Your task to perform on an android device: install app "Facebook Messenger" Image 0: 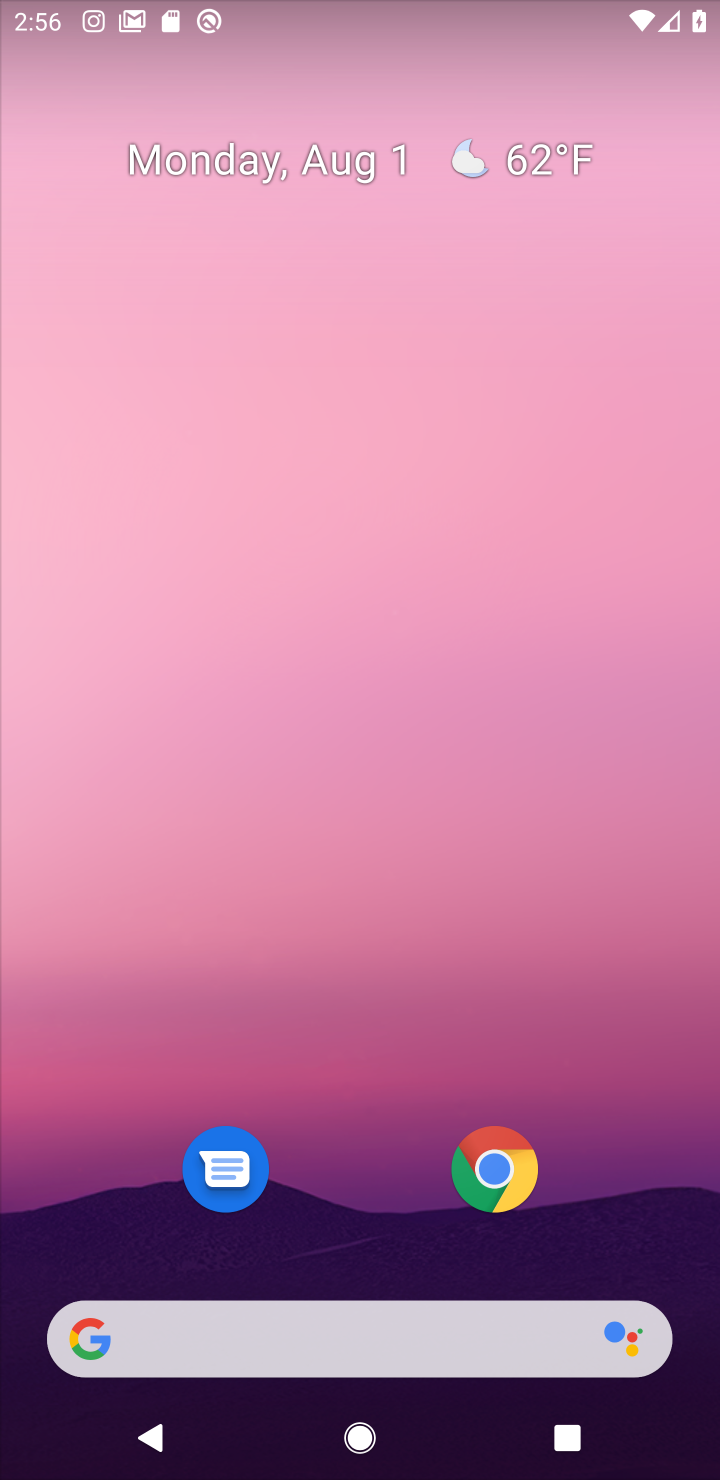
Step 0: drag from (357, 1138) to (382, 460)
Your task to perform on an android device: install app "Facebook Messenger" Image 1: 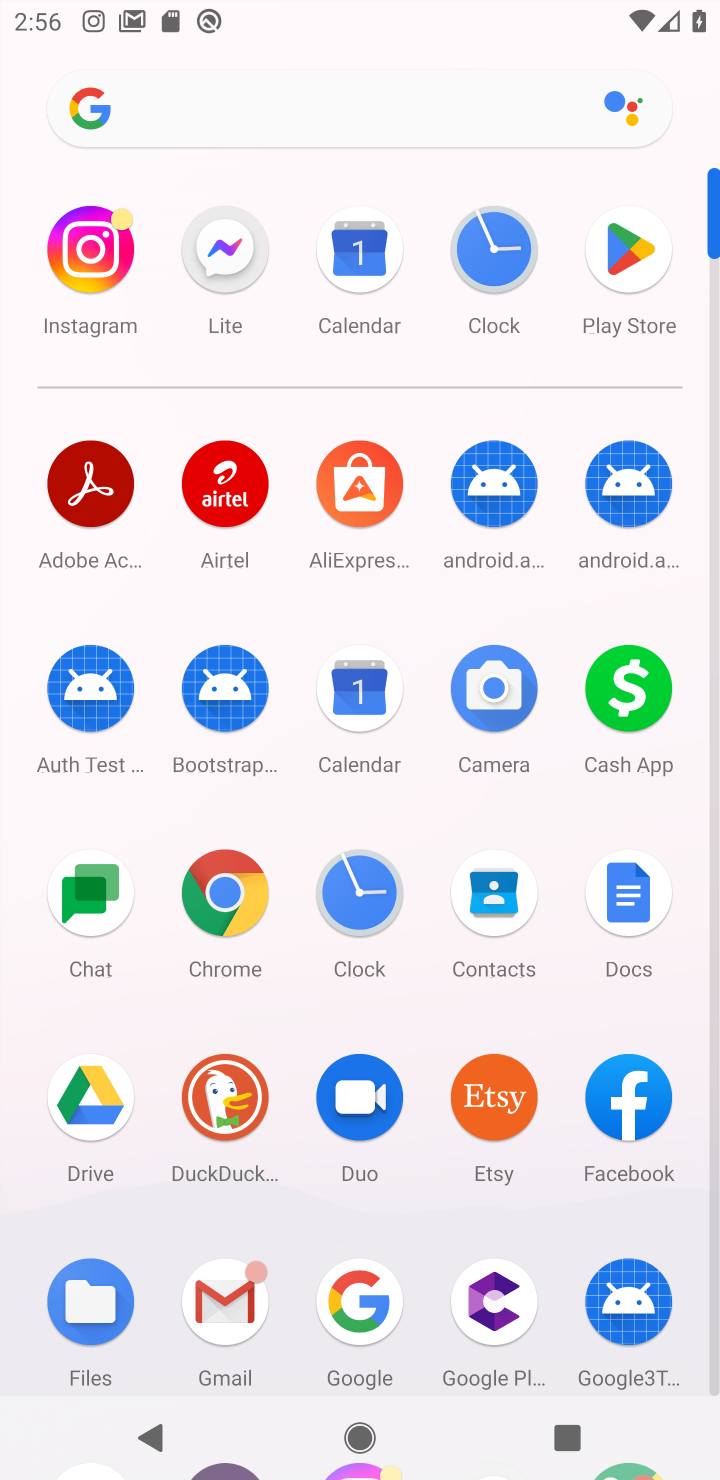
Step 1: click (609, 309)
Your task to perform on an android device: install app "Facebook Messenger" Image 2: 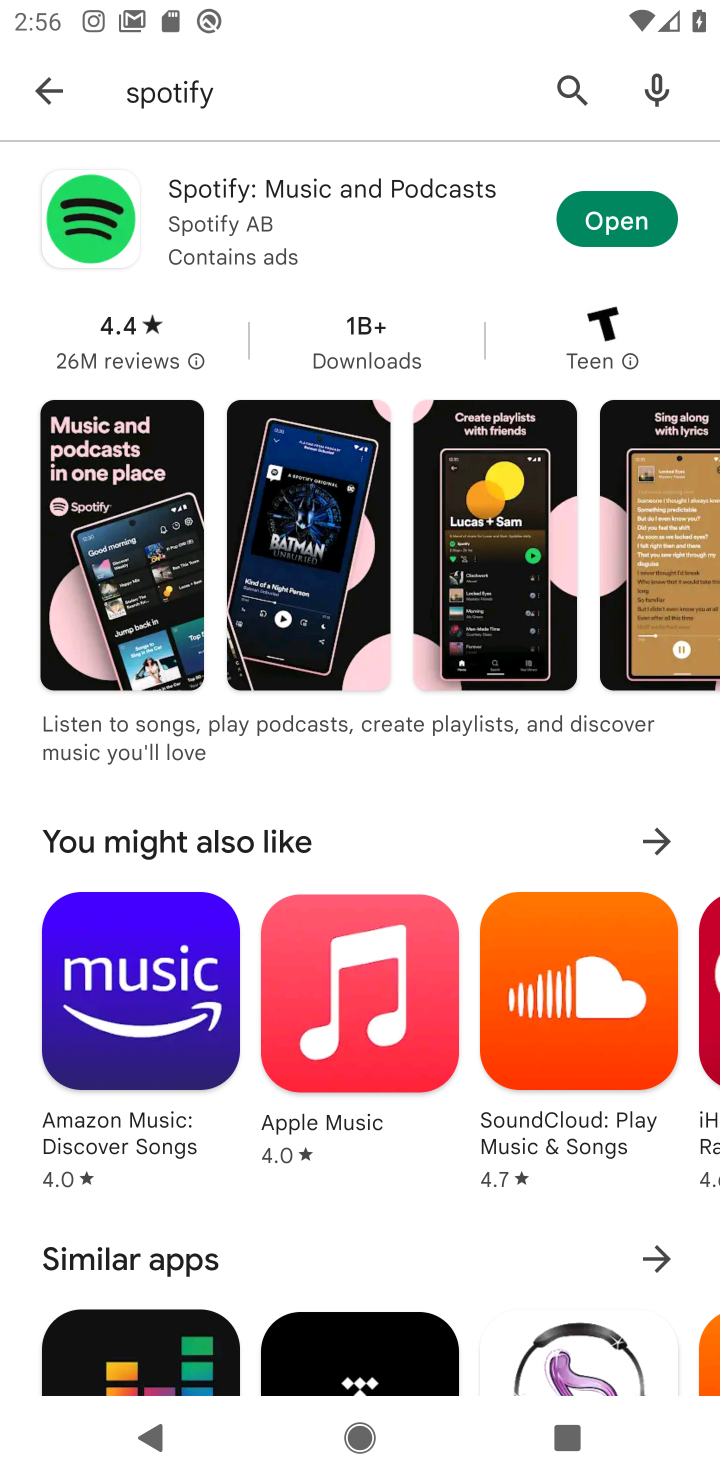
Step 2: click (55, 92)
Your task to perform on an android device: install app "Facebook Messenger" Image 3: 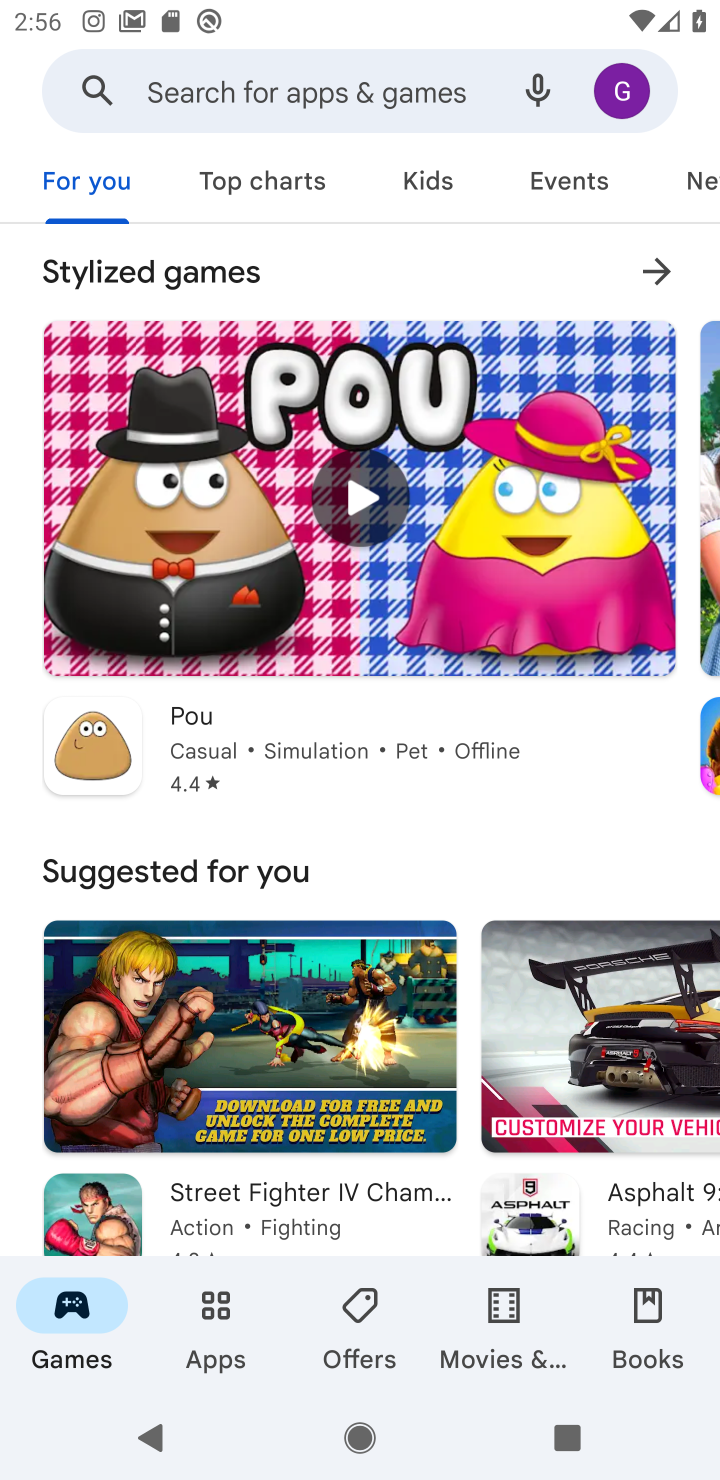
Step 3: click (245, 101)
Your task to perform on an android device: install app "Facebook Messenger" Image 4: 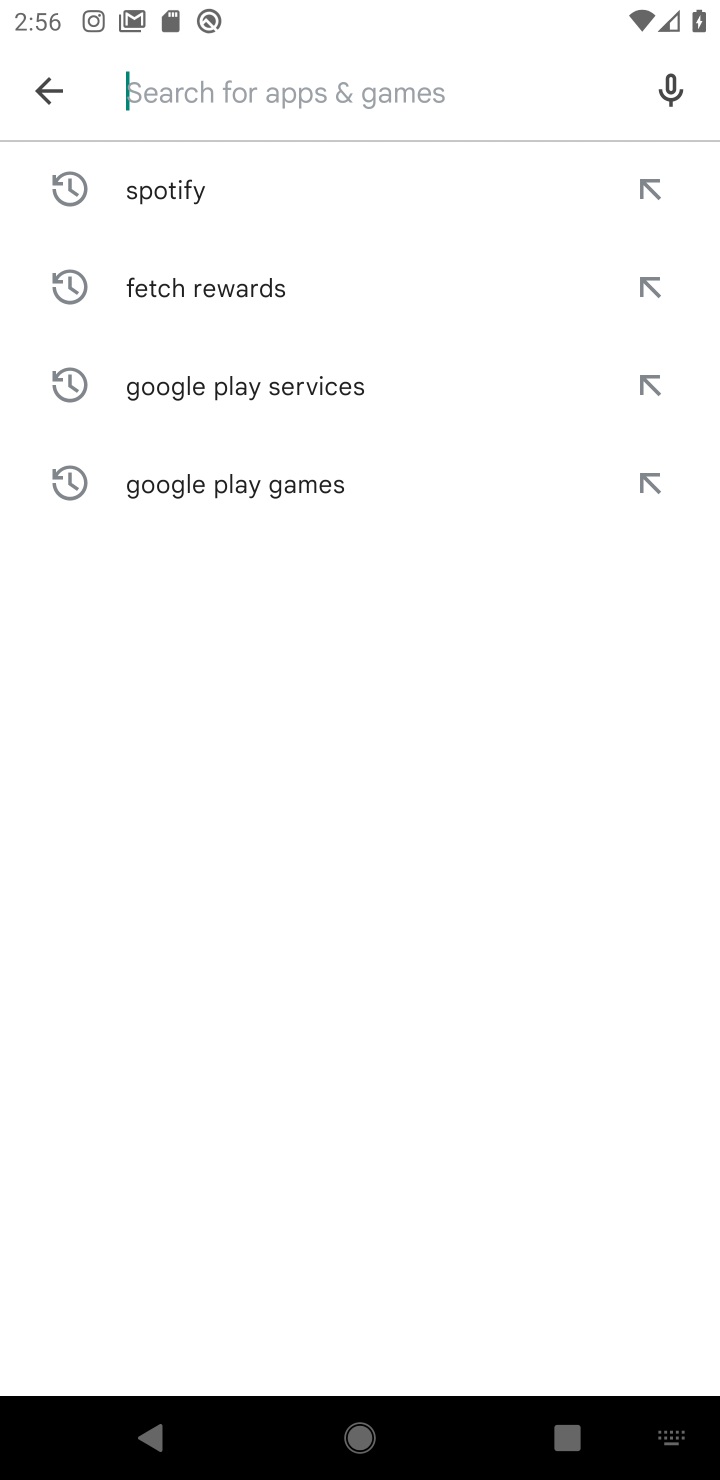
Step 4: type "Facebook Messenger"
Your task to perform on an android device: install app "Facebook Messenger" Image 5: 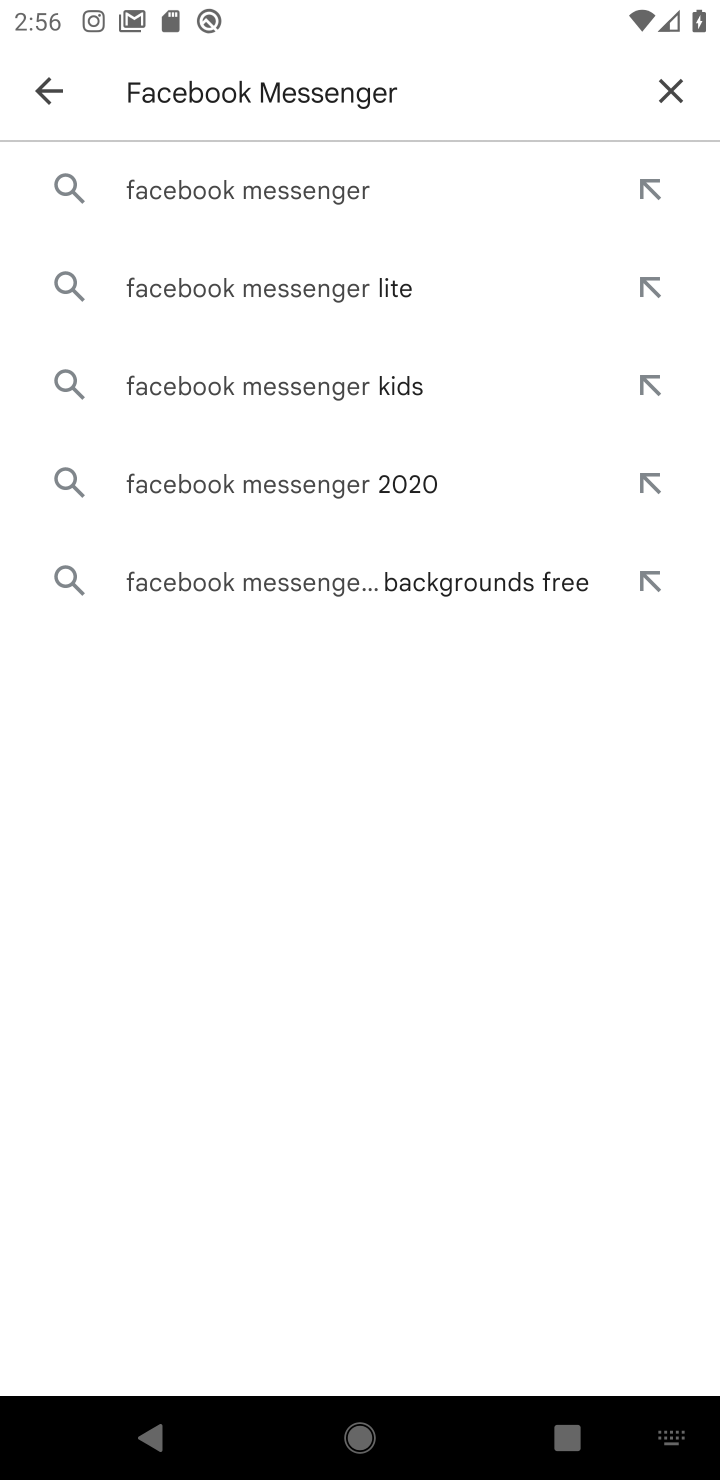
Step 5: click (187, 203)
Your task to perform on an android device: install app "Facebook Messenger" Image 6: 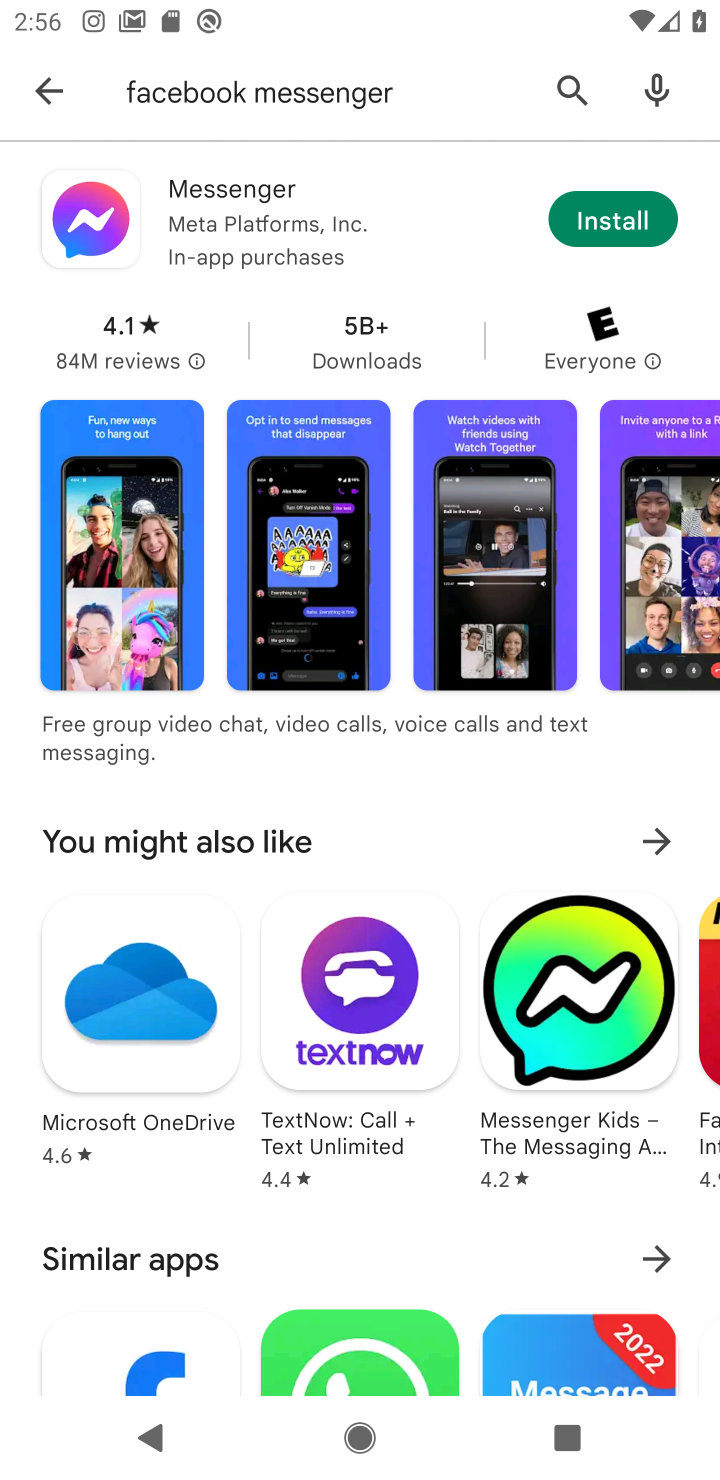
Step 6: click (603, 230)
Your task to perform on an android device: install app "Facebook Messenger" Image 7: 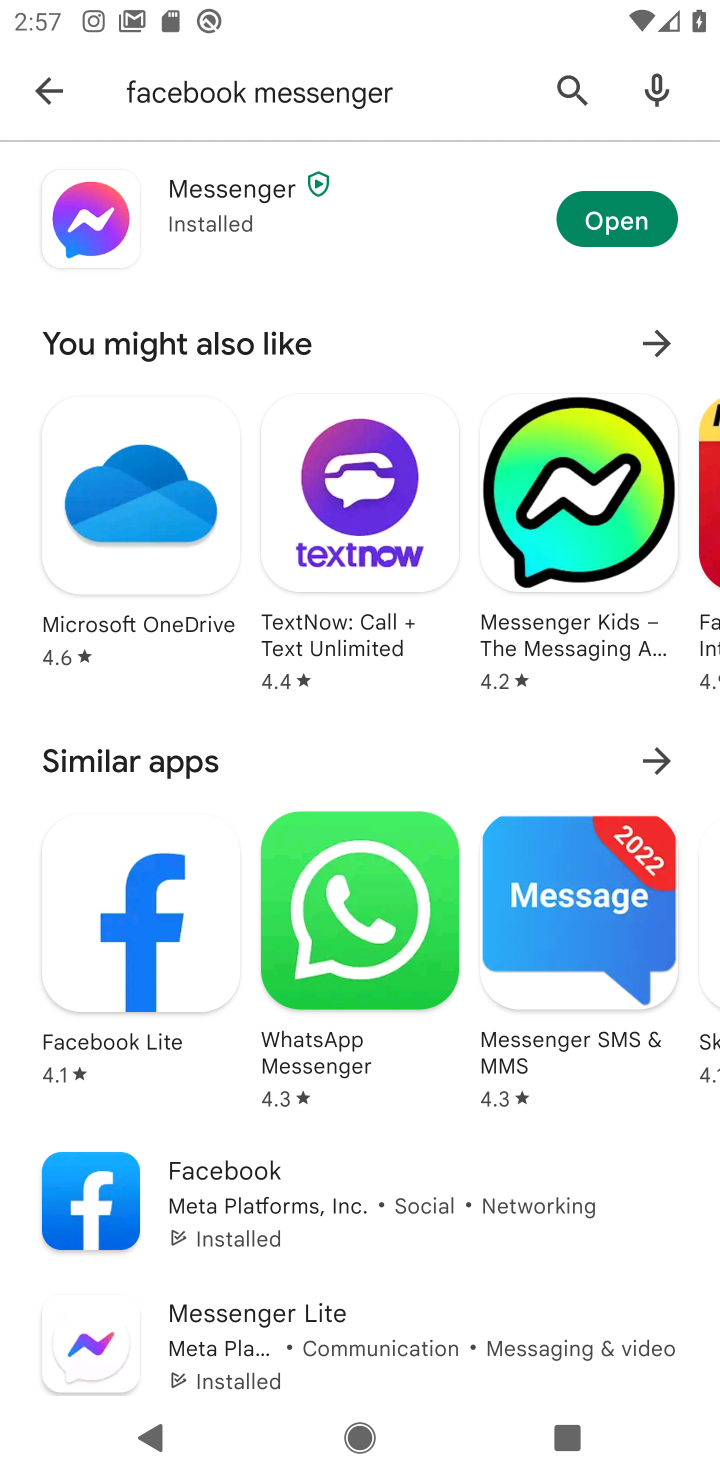
Step 7: task complete